Your task to perform on an android device: Go to Yahoo.com Image 0: 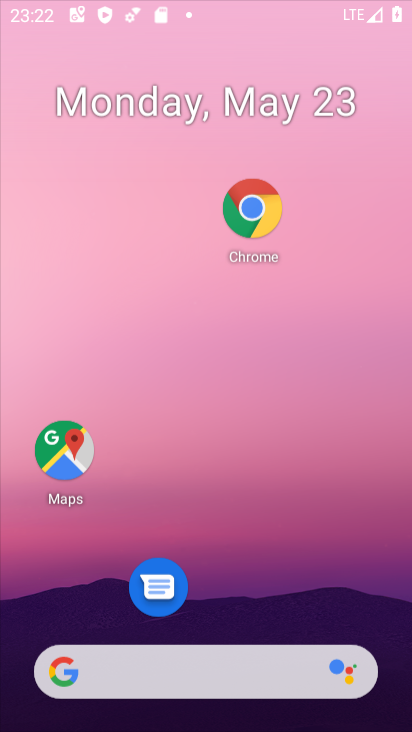
Step 0: click (196, 113)
Your task to perform on an android device: Go to Yahoo.com Image 1: 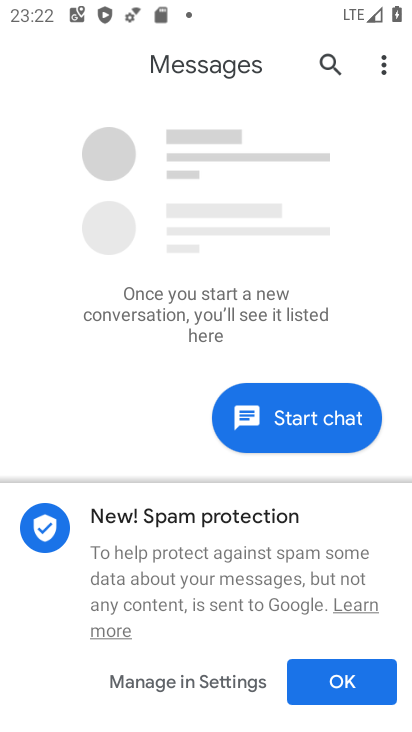
Step 1: press back button
Your task to perform on an android device: Go to Yahoo.com Image 2: 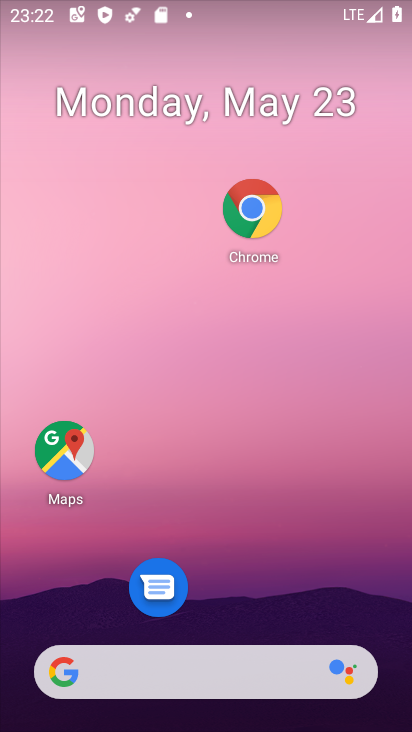
Step 2: drag from (248, 690) to (165, 116)
Your task to perform on an android device: Go to Yahoo.com Image 3: 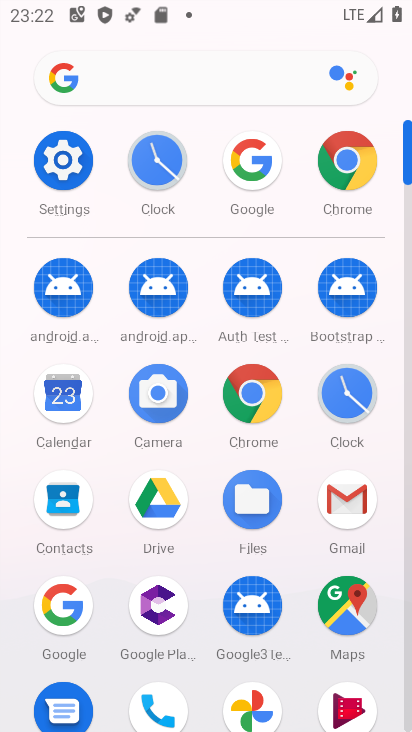
Step 3: click (357, 165)
Your task to perform on an android device: Go to Yahoo.com Image 4: 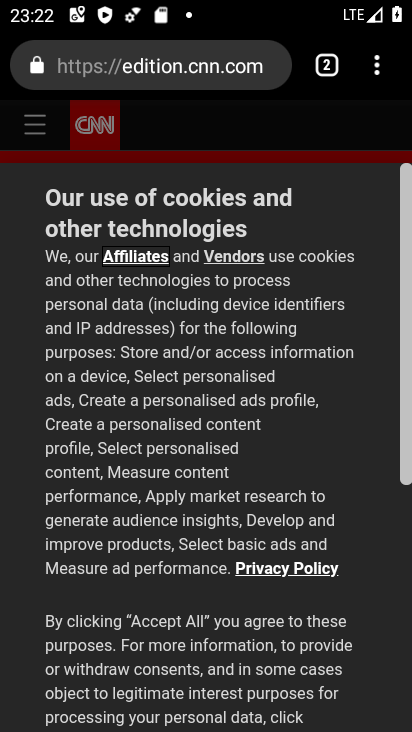
Step 4: drag from (367, 67) to (149, 129)
Your task to perform on an android device: Go to Yahoo.com Image 5: 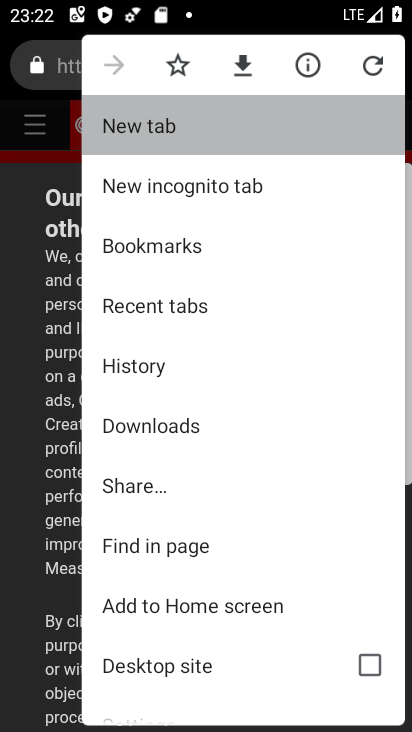
Step 5: click (149, 129)
Your task to perform on an android device: Go to Yahoo.com Image 6: 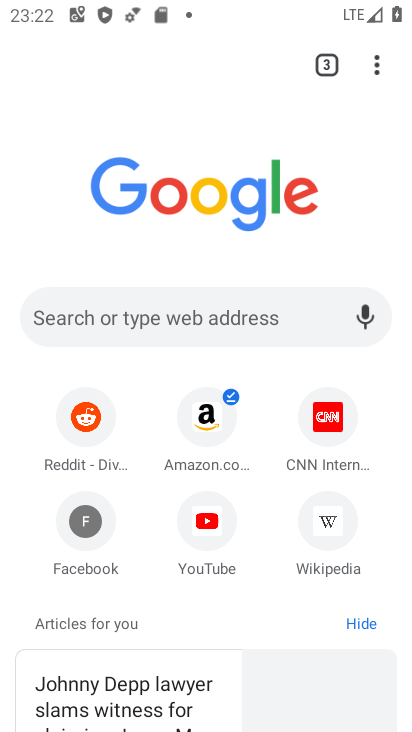
Step 6: drag from (232, 507) to (255, 176)
Your task to perform on an android device: Go to Yahoo.com Image 7: 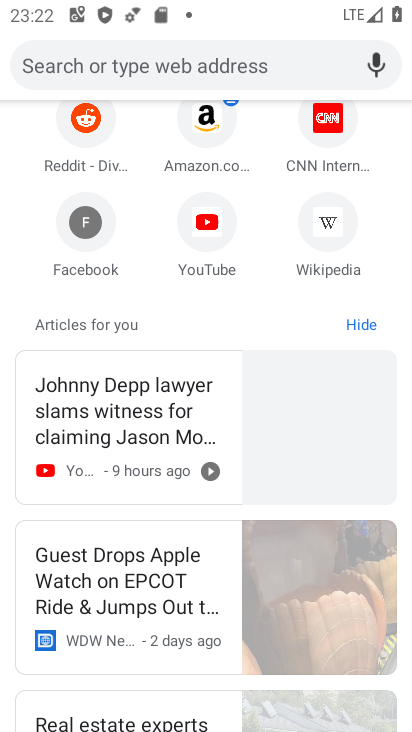
Step 7: drag from (237, 453) to (244, 200)
Your task to perform on an android device: Go to Yahoo.com Image 8: 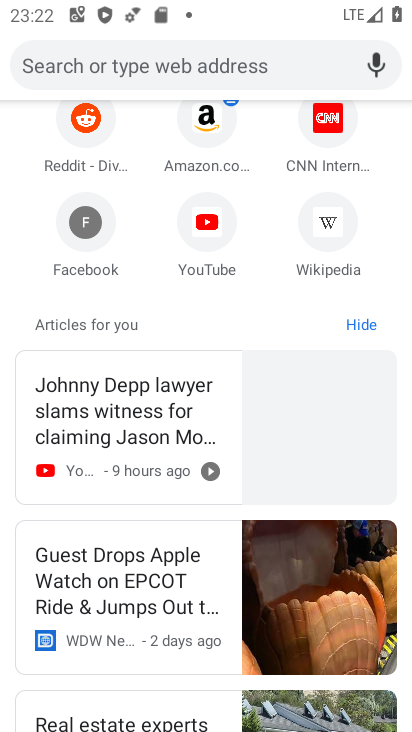
Step 8: drag from (175, 443) to (216, 725)
Your task to perform on an android device: Go to Yahoo.com Image 9: 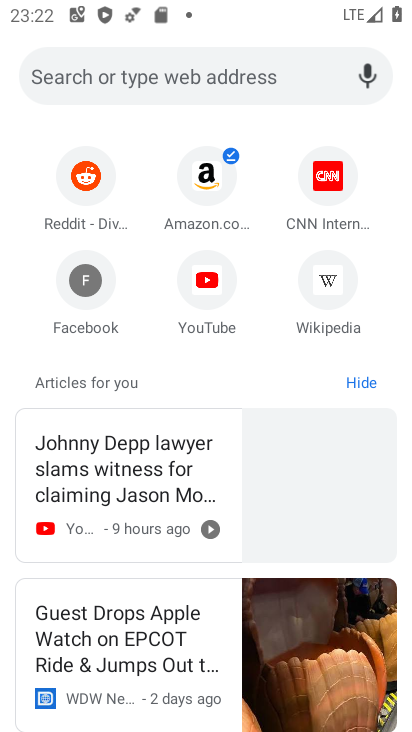
Step 9: drag from (190, 327) to (225, 728)
Your task to perform on an android device: Go to Yahoo.com Image 10: 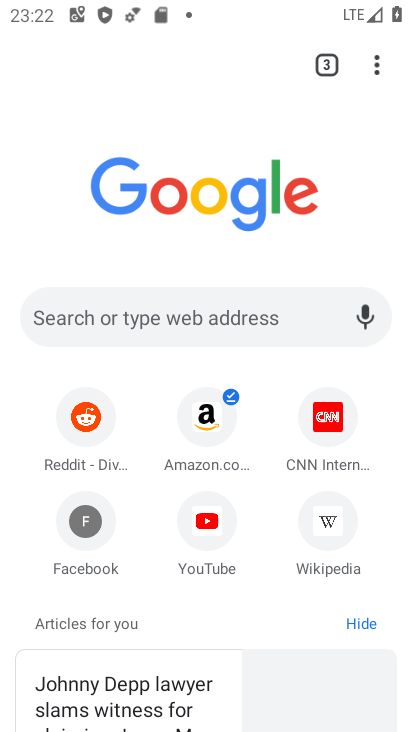
Step 10: click (52, 320)
Your task to perform on an android device: Go to Yahoo.com Image 11: 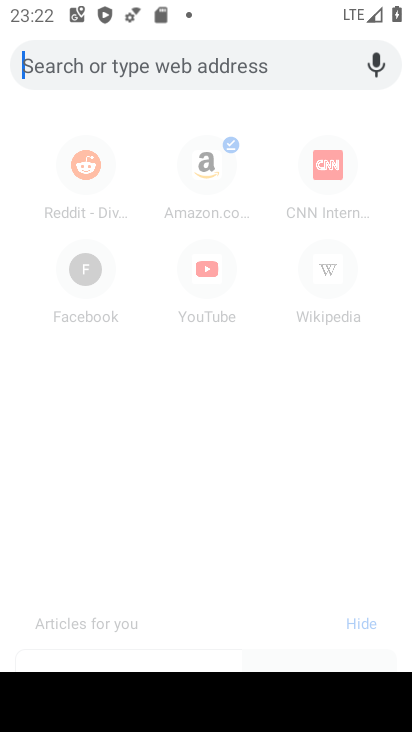
Step 11: type "yahoo.com"
Your task to perform on an android device: Go to Yahoo.com Image 12: 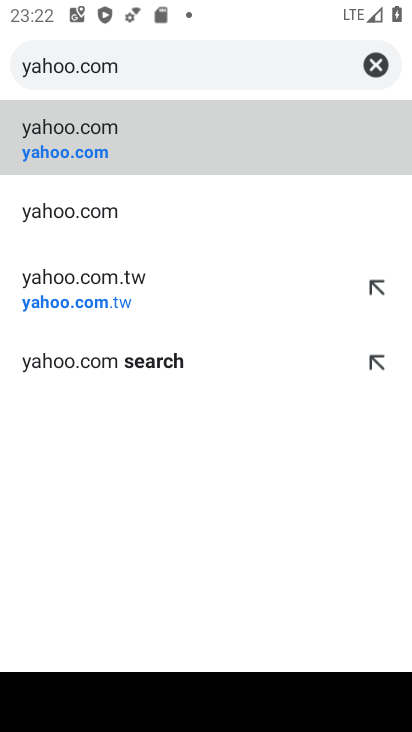
Step 12: click (73, 144)
Your task to perform on an android device: Go to Yahoo.com Image 13: 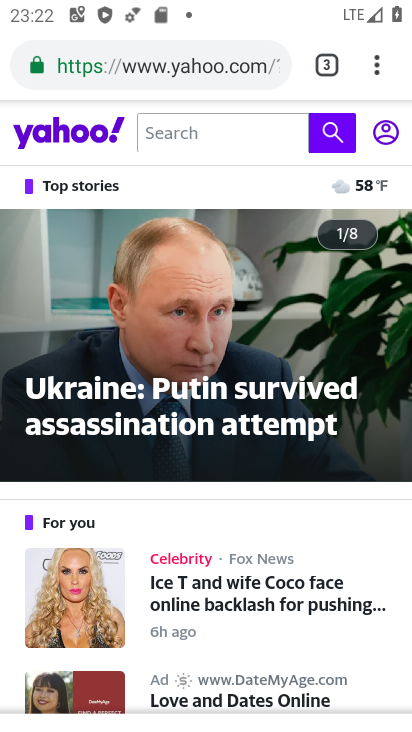
Step 13: task complete